Your task to perform on an android device: clear all cookies in the chrome app Image 0: 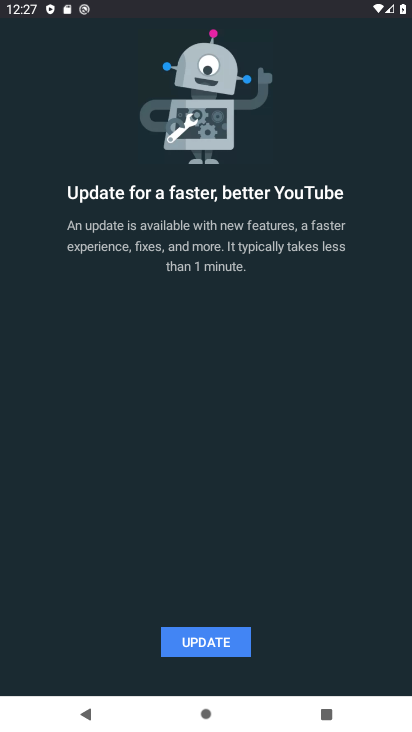
Step 0: press home button
Your task to perform on an android device: clear all cookies in the chrome app Image 1: 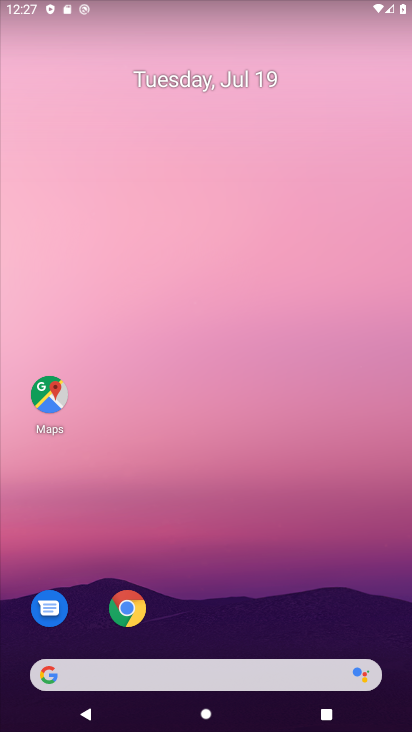
Step 1: click (135, 604)
Your task to perform on an android device: clear all cookies in the chrome app Image 2: 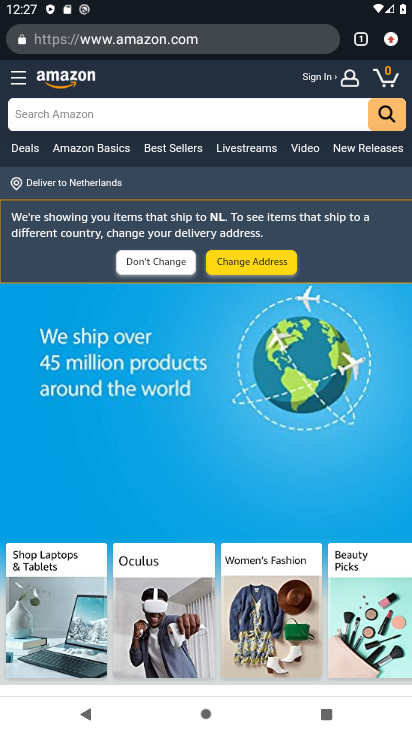
Step 2: click (393, 42)
Your task to perform on an android device: clear all cookies in the chrome app Image 3: 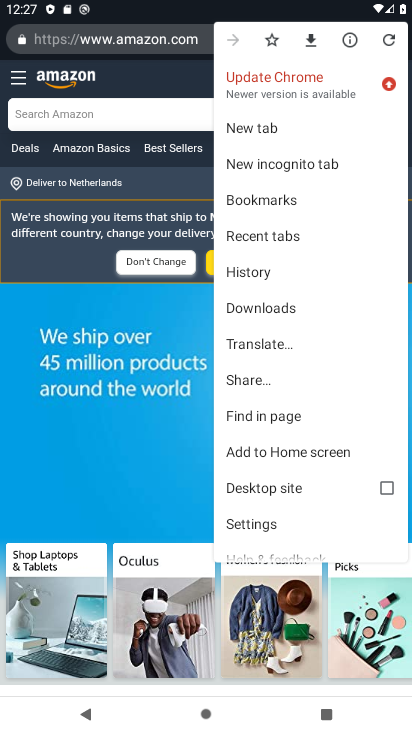
Step 3: click (260, 528)
Your task to perform on an android device: clear all cookies in the chrome app Image 4: 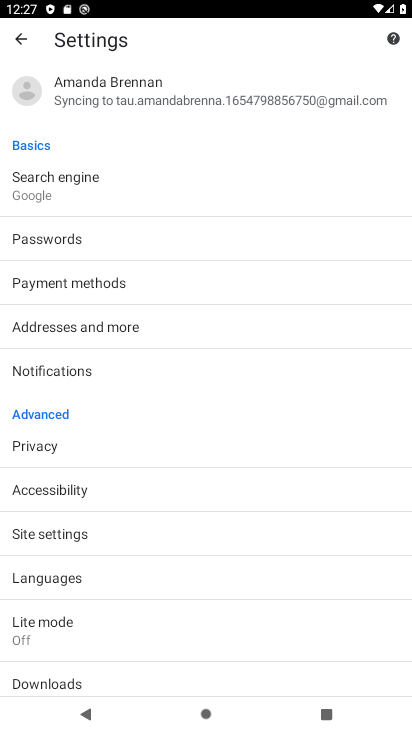
Step 4: drag from (268, 201) to (258, 57)
Your task to perform on an android device: clear all cookies in the chrome app Image 5: 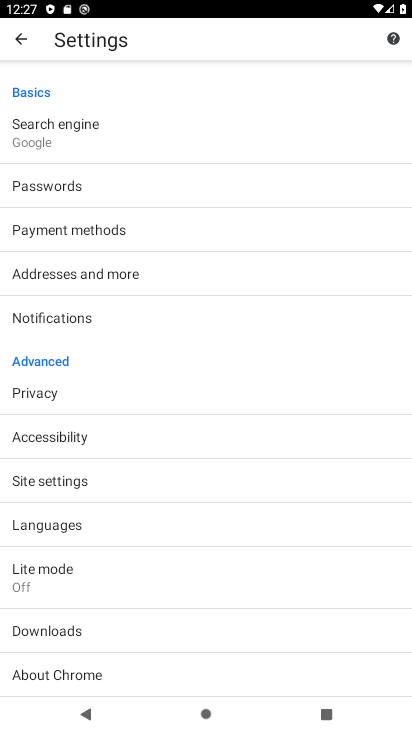
Step 5: click (75, 395)
Your task to perform on an android device: clear all cookies in the chrome app Image 6: 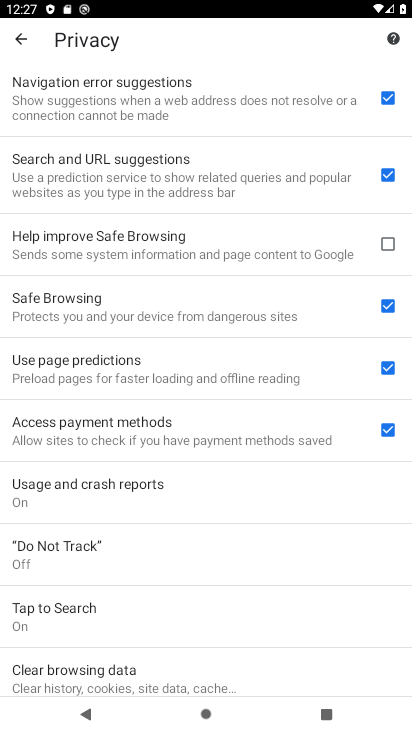
Step 6: click (25, 37)
Your task to perform on an android device: clear all cookies in the chrome app Image 7: 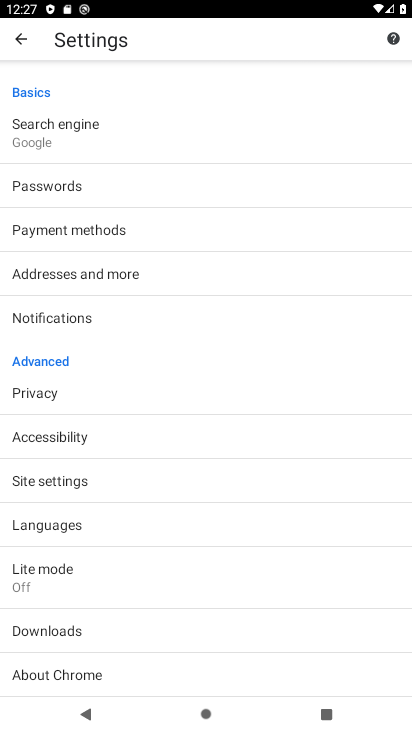
Step 7: click (104, 482)
Your task to perform on an android device: clear all cookies in the chrome app Image 8: 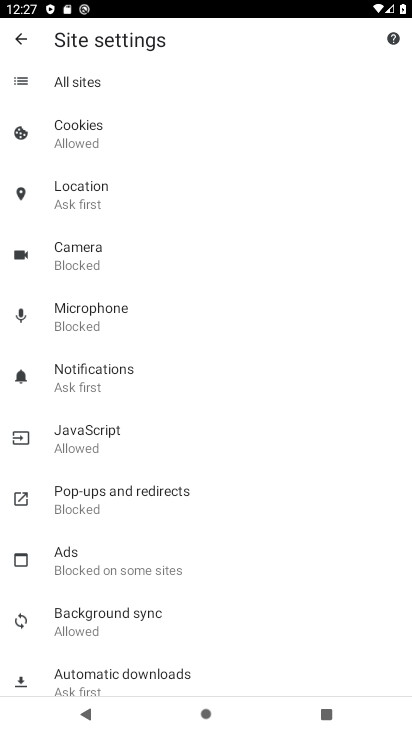
Step 8: click (110, 139)
Your task to perform on an android device: clear all cookies in the chrome app Image 9: 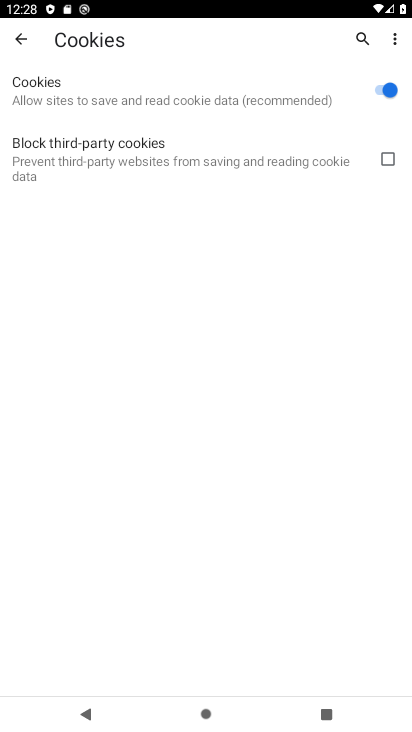
Step 9: click (398, 34)
Your task to perform on an android device: clear all cookies in the chrome app Image 10: 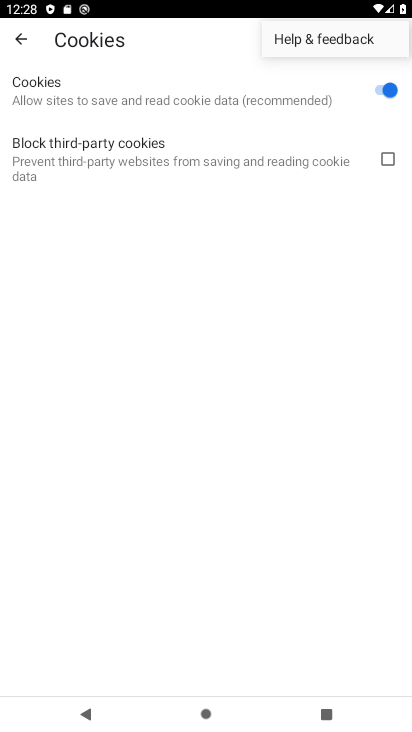
Step 10: click (257, 486)
Your task to perform on an android device: clear all cookies in the chrome app Image 11: 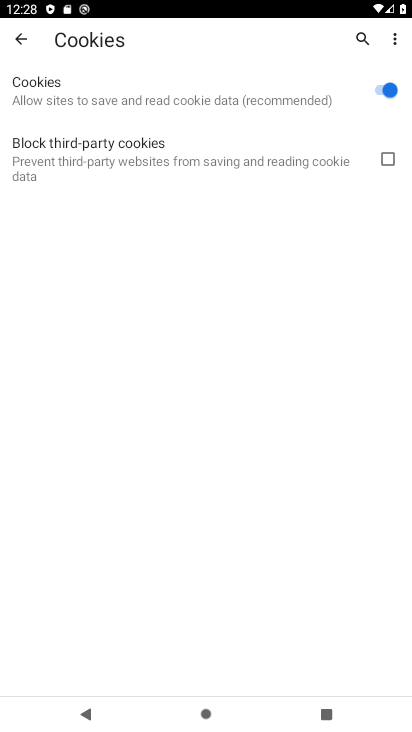
Step 11: task complete